Your task to perform on an android device: set the timer Image 0: 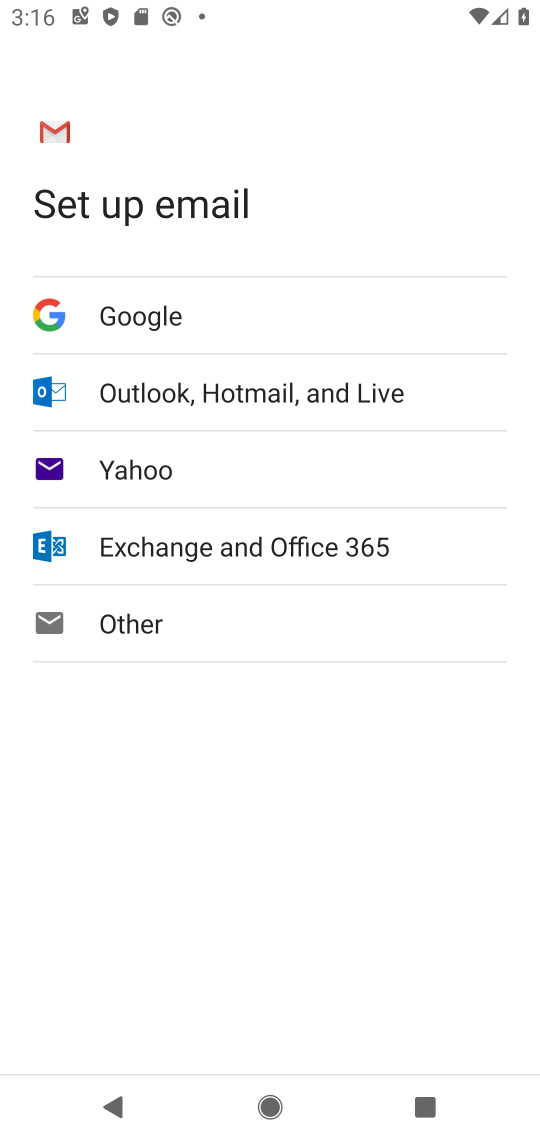
Step 0: press back button
Your task to perform on an android device: set the timer Image 1: 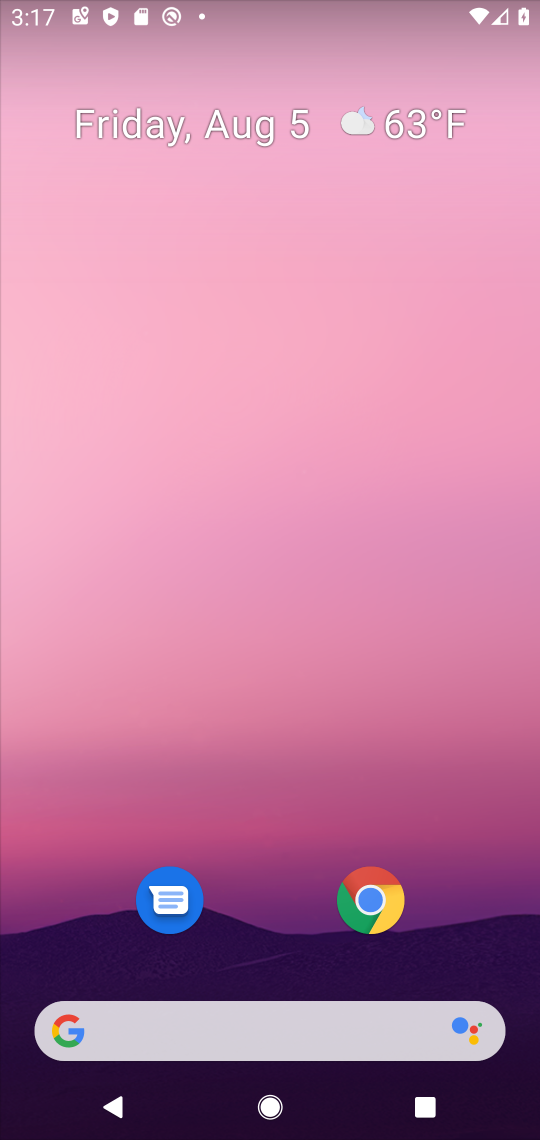
Step 1: drag from (244, 948) to (414, 152)
Your task to perform on an android device: set the timer Image 2: 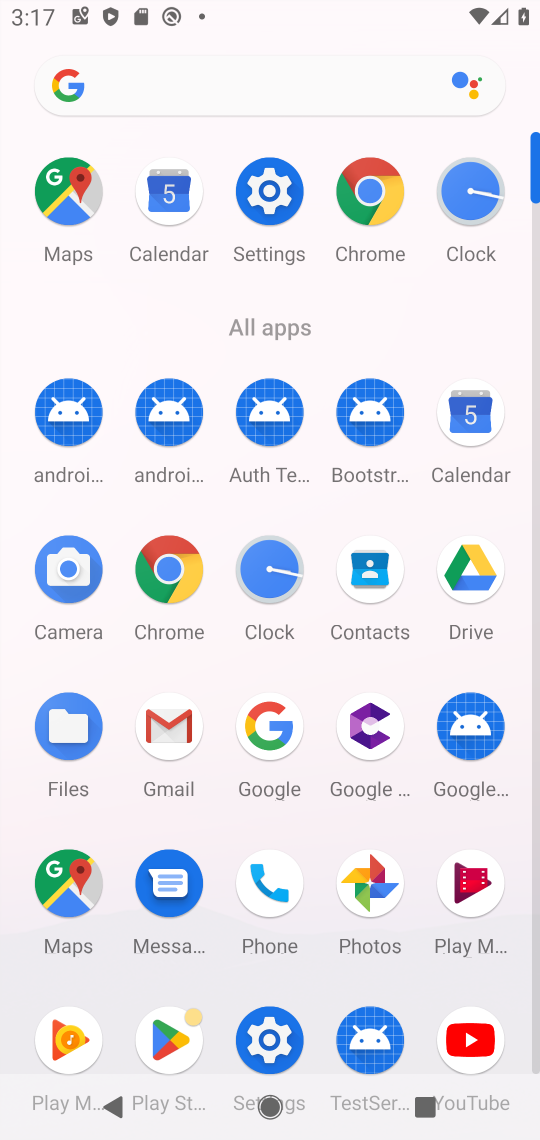
Step 2: click (259, 572)
Your task to perform on an android device: set the timer Image 3: 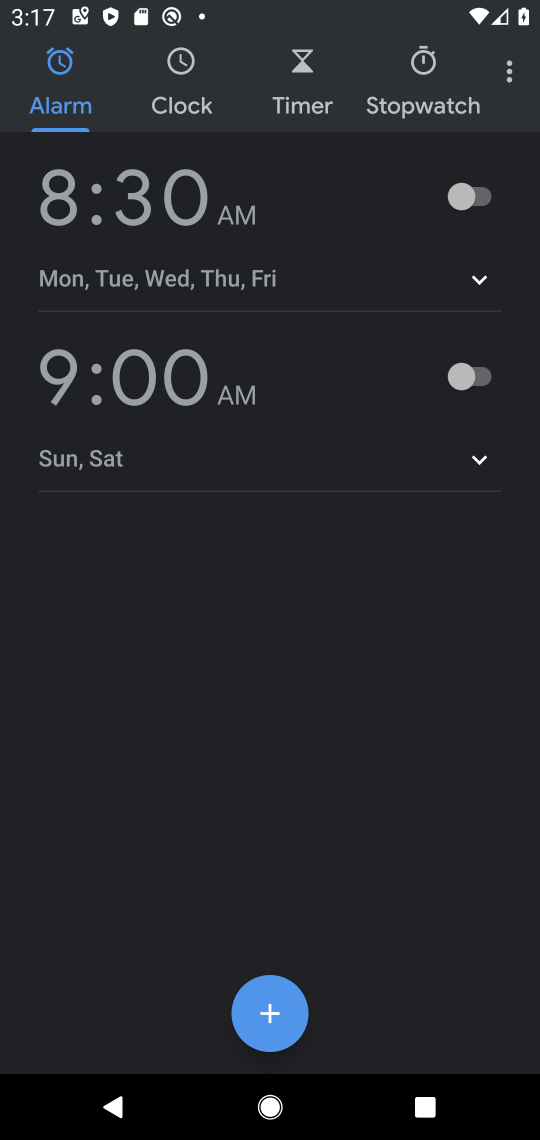
Step 3: click (326, 61)
Your task to perform on an android device: set the timer Image 4: 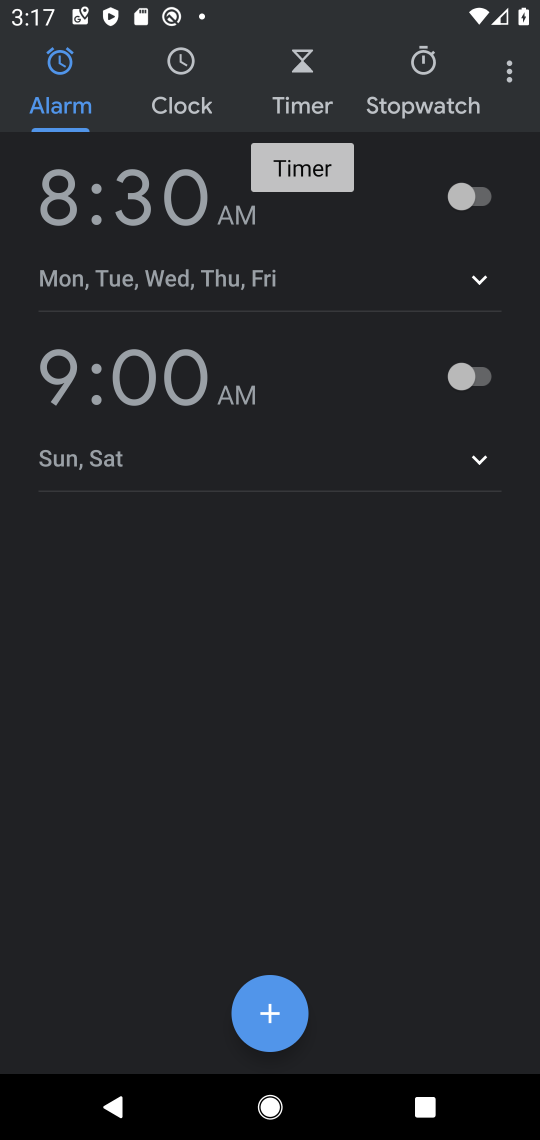
Step 4: click (315, 93)
Your task to perform on an android device: set the timer Image 5: 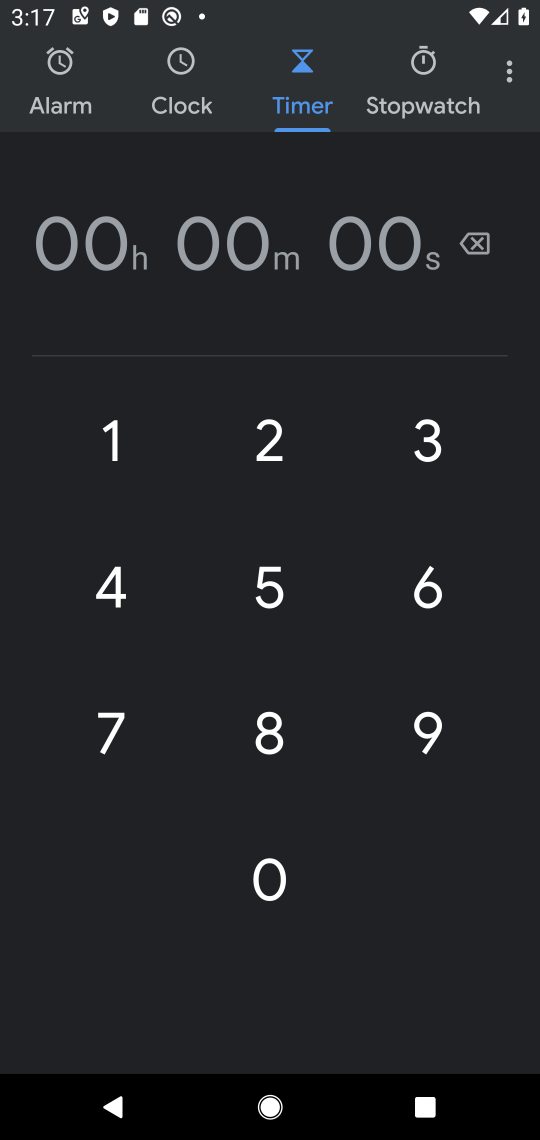
Step 5: click (264, 439)
Your task to perform on an android device: set the timer Image 6: 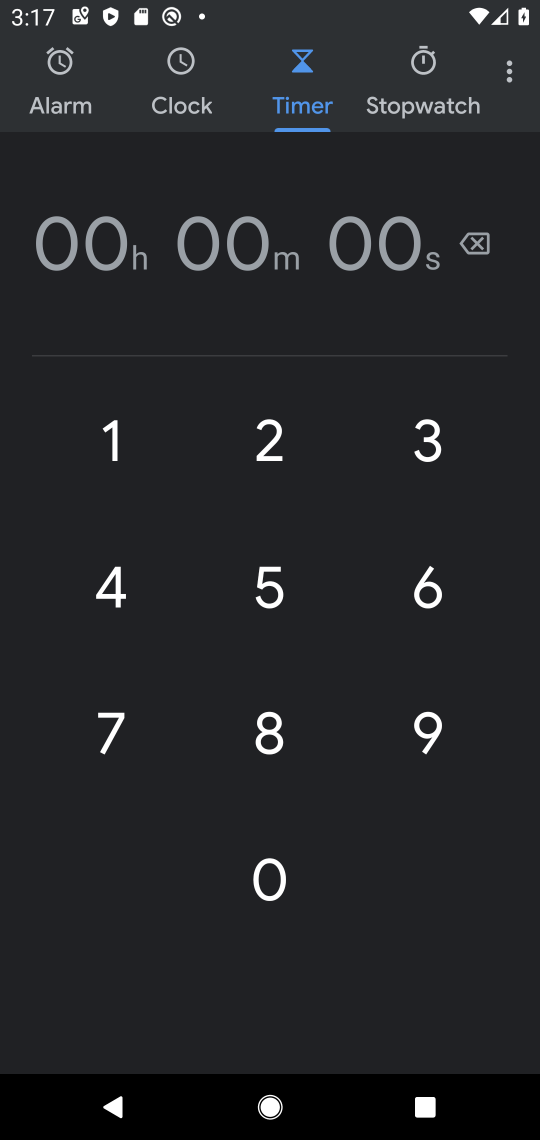
Step 6: click (460, 425)
Your task to perform on an android device: set the timer Image 7: 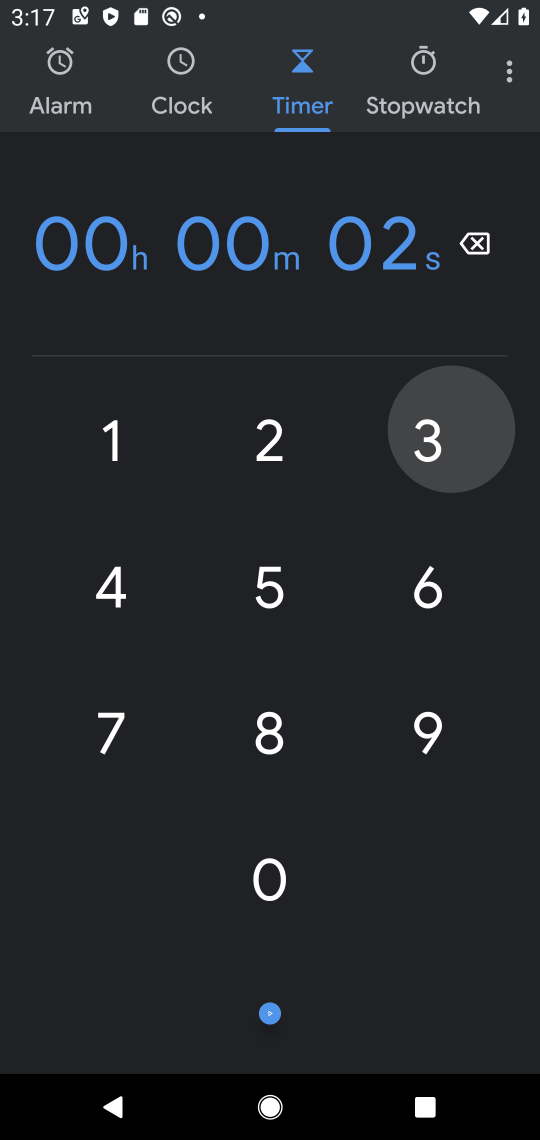
Step 7: click (128, 580)
Your task to perform on an android device: set the timer Image 8: 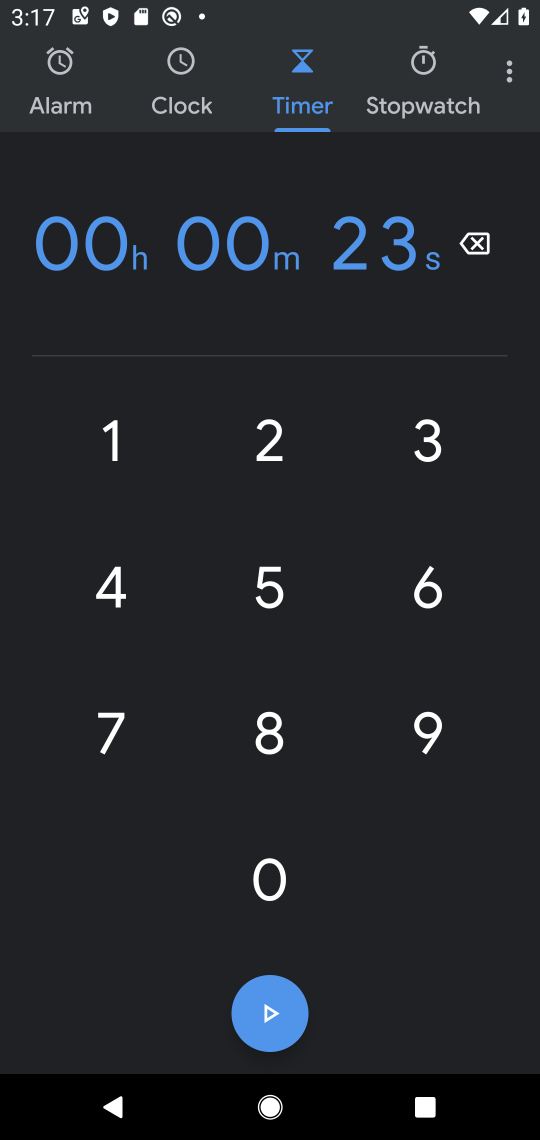
Step 8: click (246, 601)
Your task to perform on an android device: set the timer Image 9: 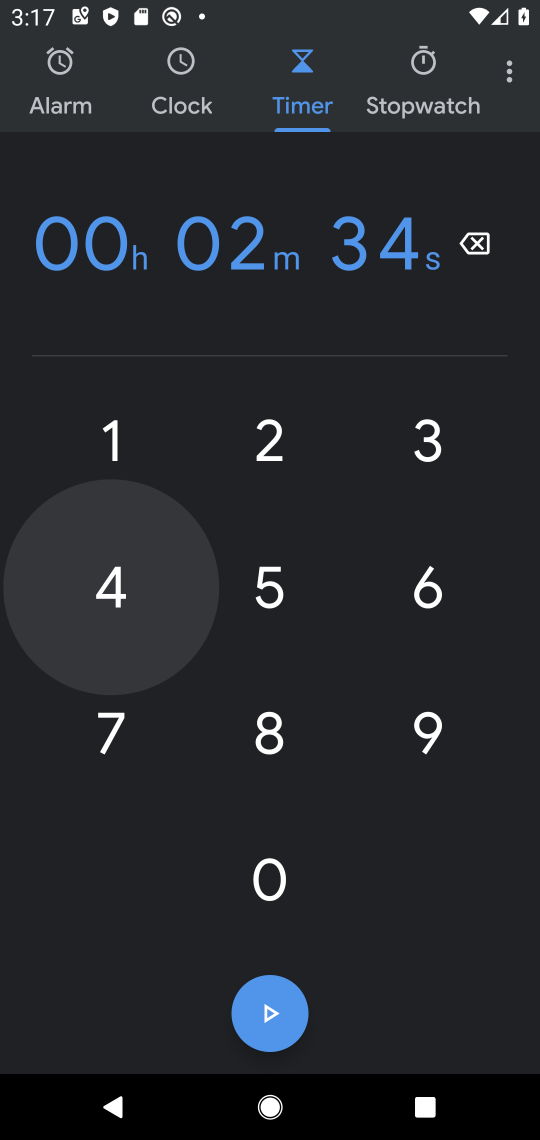
Step 9: click (395, 573)
Your task to perform on an android device: set the timer Image 10: 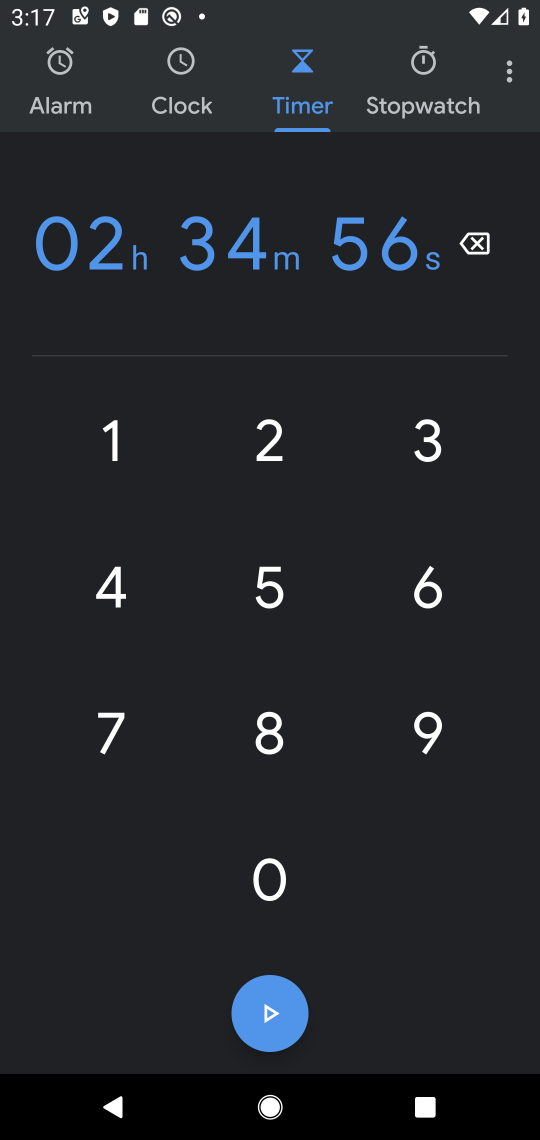
Step 10: task complete